Your task to perform on an android device: change the clock display to show seconds Image 0: 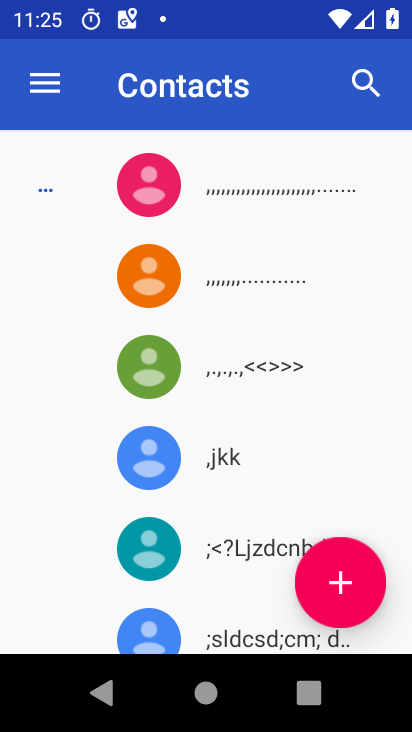
Step 0: press home button
Your task to perform on an android device: change the clock display to show seconds Image 1: 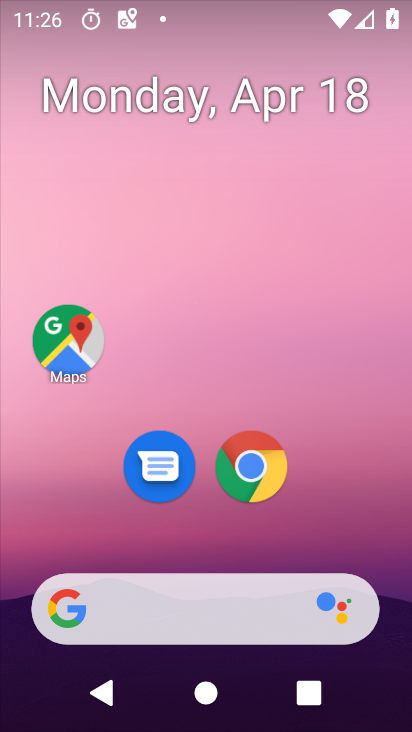
Step 1: drag from (263, 461) to (224, 2)
Your task to perform on an android device: change the clock display to show seconds Image 2: 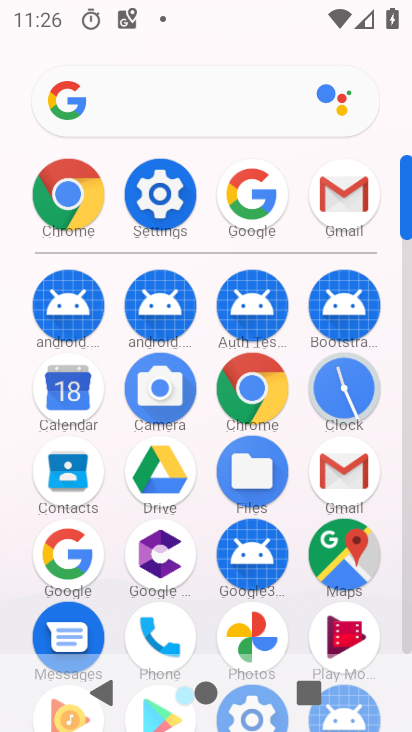
Step 2: click (349, 375)
Your task to perform on an android device: change the clock display to show seconds Image 3: 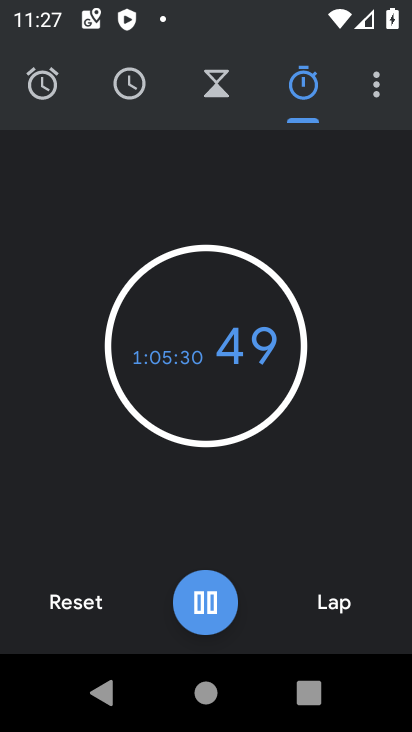
Step 3: click (360, 102)
Your task to perform on an android device: change the clock display to show seconds Image 4: 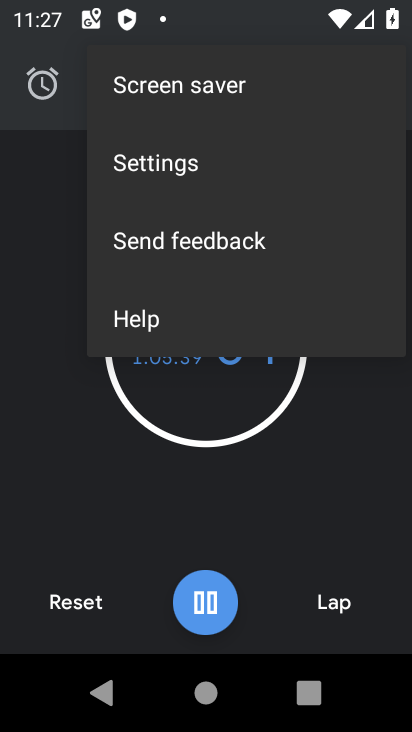
Step 4: click (224, 179)
Your task to perform on an android device: change the clock display to show seconds Image 5: 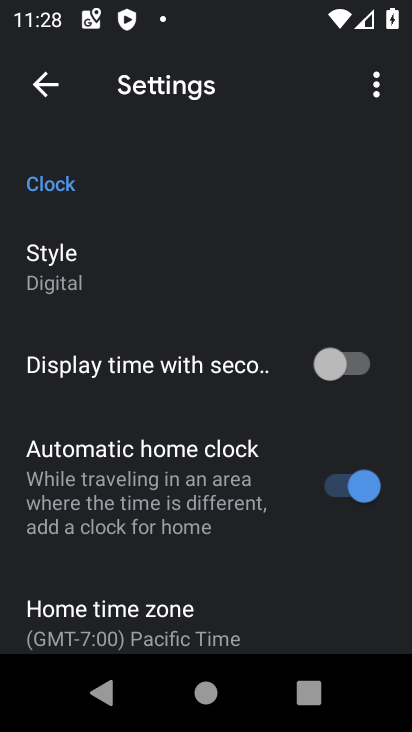
Step 5: click (329, 366)
Your task to perform on an android device: change the clock display to show seconds Image 6: 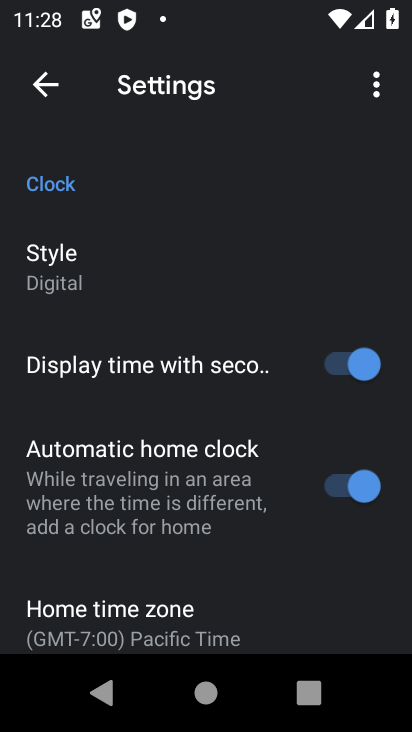
Step 6: task complete